Your task to perform on an android device: turn on notifications settings in the gmail app Image 0: 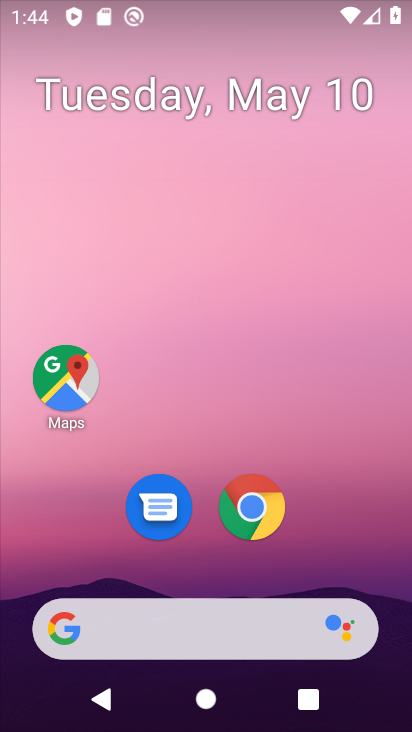
Step 0: drag from (349, 551) to (143, 192)
Your task to perform on an android device: turn on notifications settings in the gmail app Image 1: 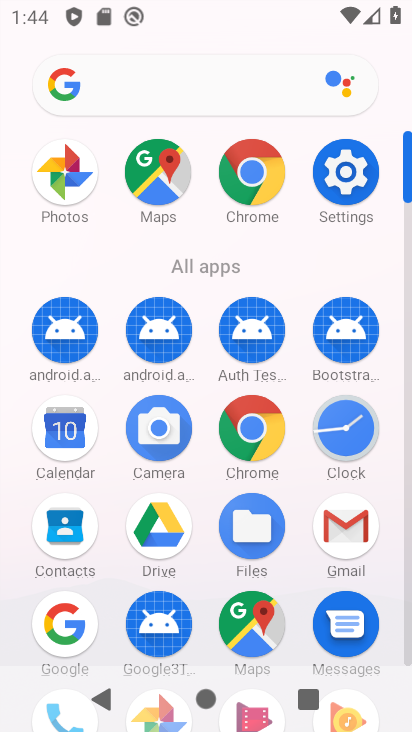
Step 1: click (343, 527)
Your task to perform on an android device: turn on notifications settings in the gmail app Image 2: 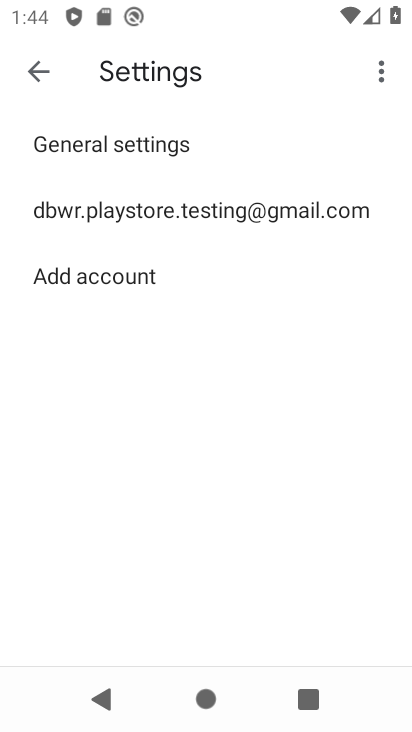
Step 2: click (204, 210)
Your task to perform on an android device: turn on notifications settings in the gmail app Image 3: 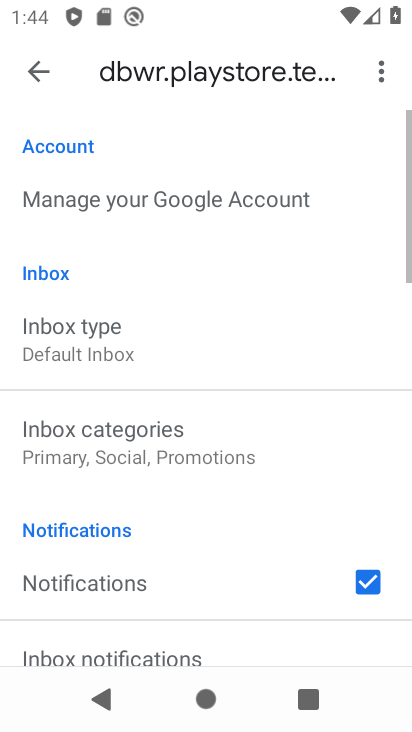
Step 3: drag from (142, 574) to (150, 259)
Your task to perform on an android device: turn on notifications settings in the gmail app Image 4: 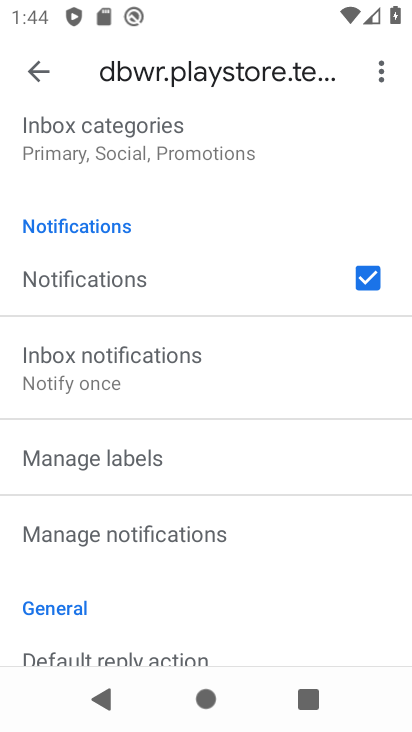
Step 4: click (118, 537)
Your task to perform on an android device: turn on notifications settings in the gmail app Image 5: 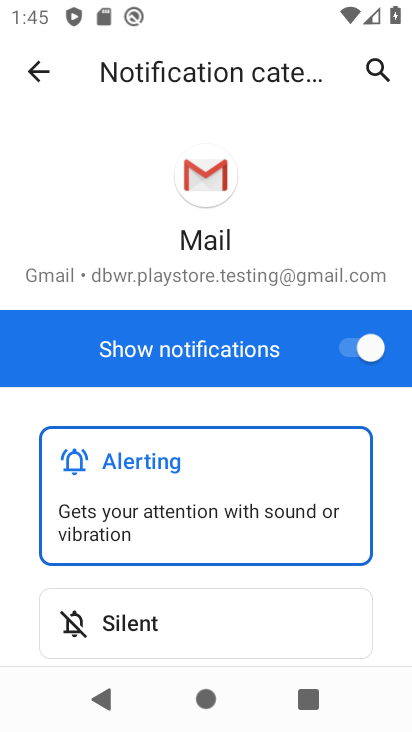
Step 5: task complete